Your task to perform on an android device: check out phone information Image 0: 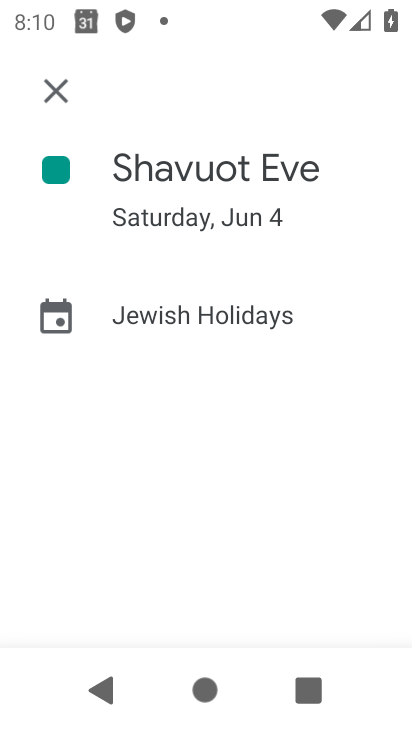
Step 0: press back button
Your task to perform on an android device: check out phone information Image 1: 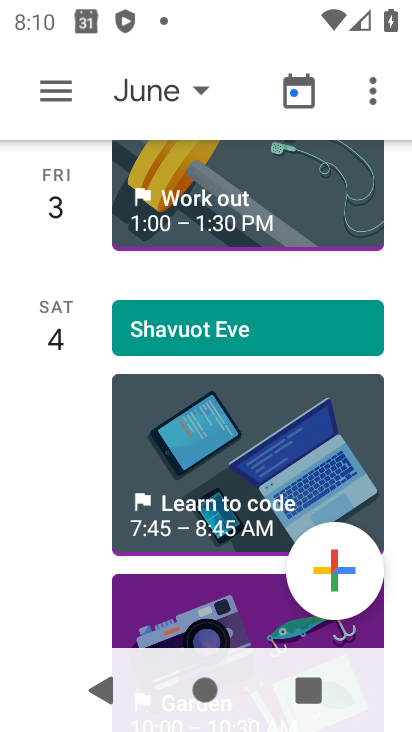
Step 1: press home button
Your task to perform on an android device: check out phone information Image 2: 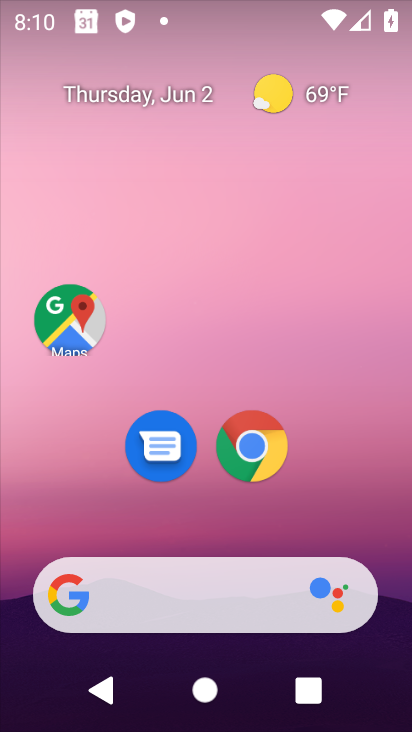
Step 2: drag from (193, 532) to (251, 20)
Your task to perform on an android device: check out phone information Image 3: 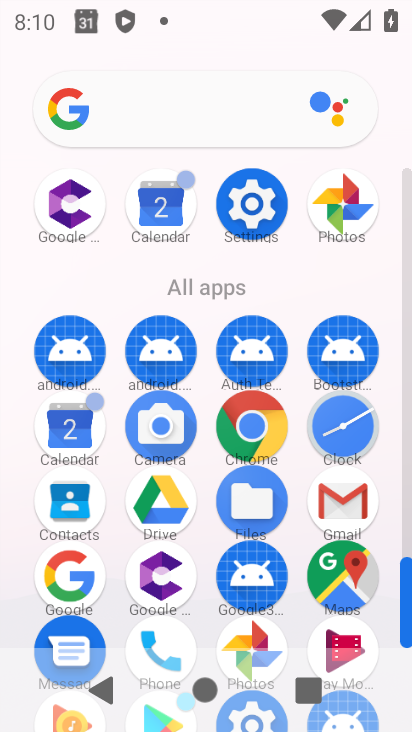
Step 3: click (248, 214)
Your task to perform on an android device: check out phone information Image 4: 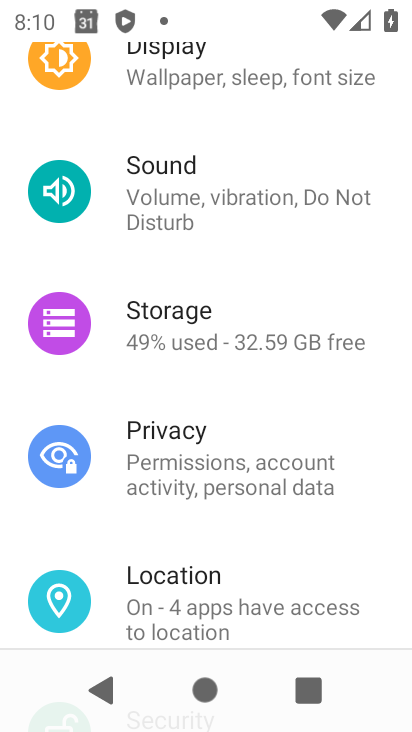
Step 4: drag from (237, 632) to (253, 103)
Your task to perform on an android device: check out phone information Image 5: 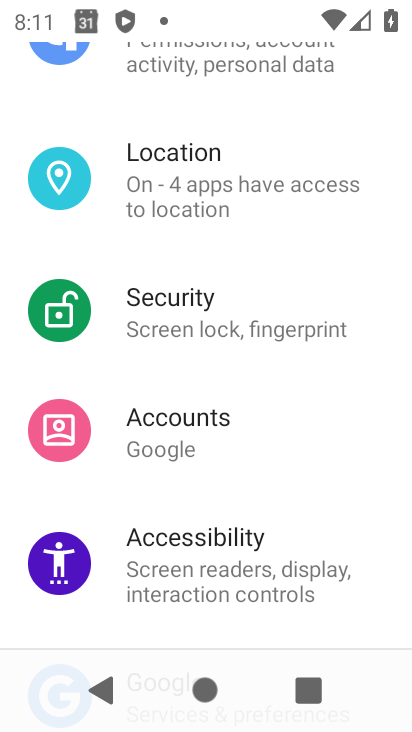
Step 5: drag from (203, 594) to (252, 75)
Your task to perform on an android device: check out phone information Image 6: 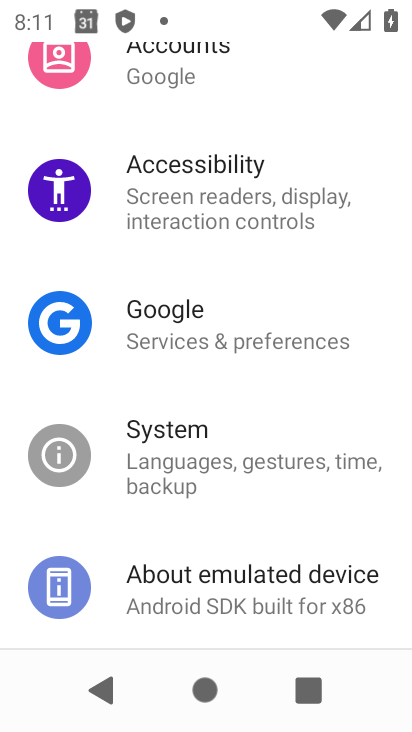
Step 6: drag from (193, 524) to (247, 124)
Your task to perform on an android device: check out phone information Image 7: 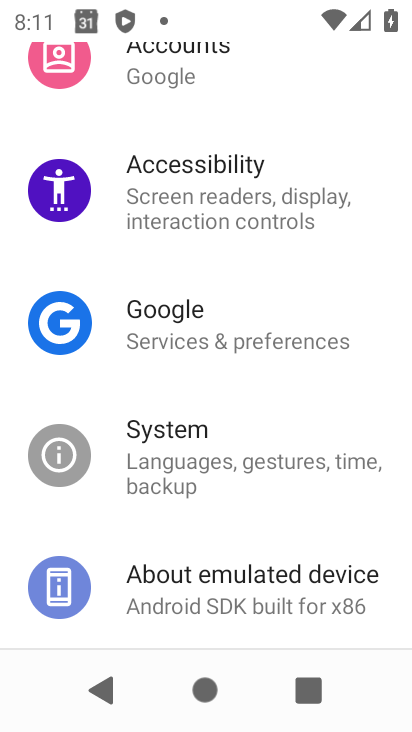
Step 7: click (199, 578)
Your task to perform on an android device: check out phone information Image 8: 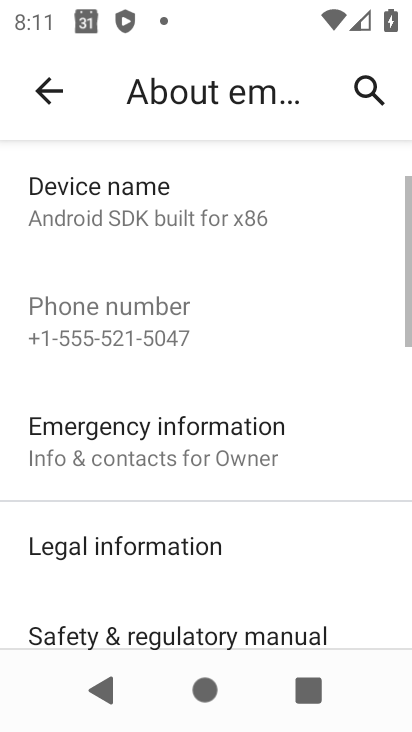
Step 8: task complete